Your task to perform on an android device: Open maps Image 0: 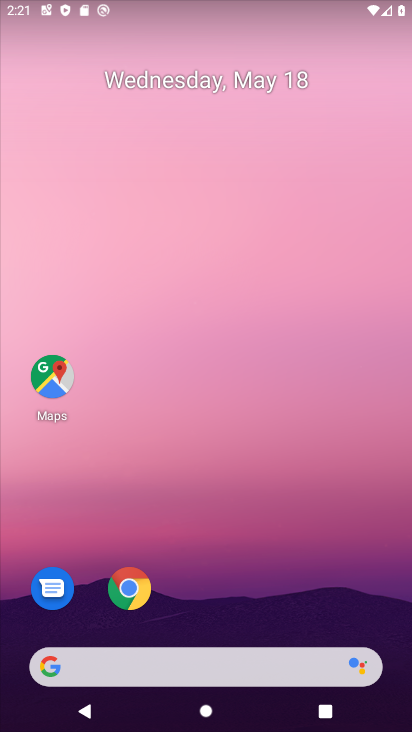
Step 0: drag from (384, 597) to (395, 238)
Your task to perform on an android device: Open maps Image 1: 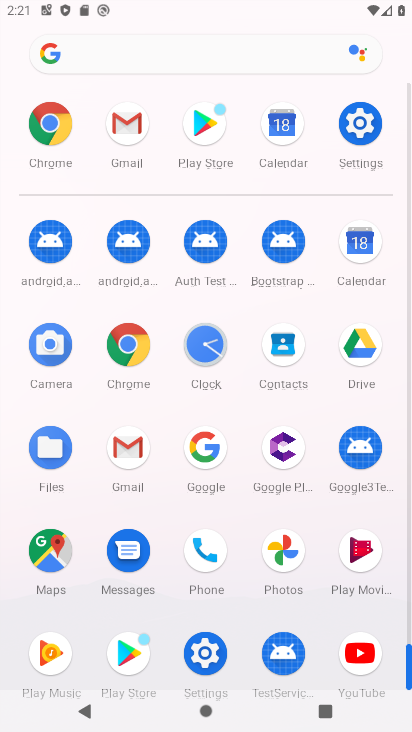
Step 1: click (47, 560)
Your task to perform on an android device: Open maps Image 2: 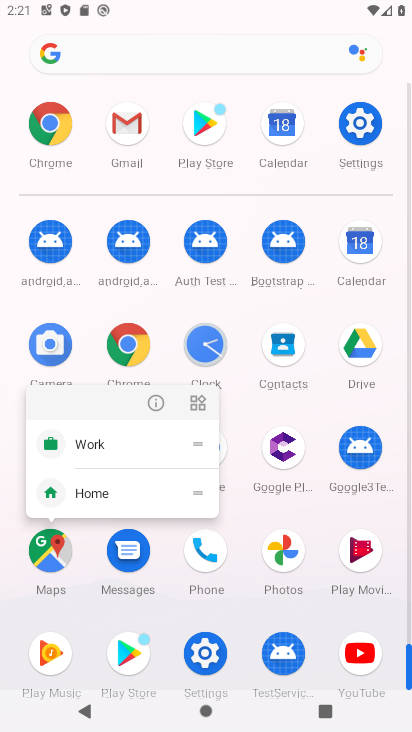
Step 2: click (48, 553)
Your task to perform on an android device: Open maps Image 3: 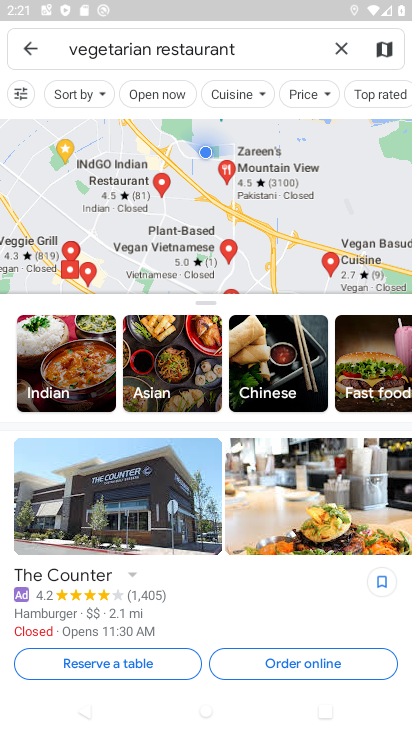
Step 3: task complete